Your task to perform on an android device: open sync settings in chrome Image 0: 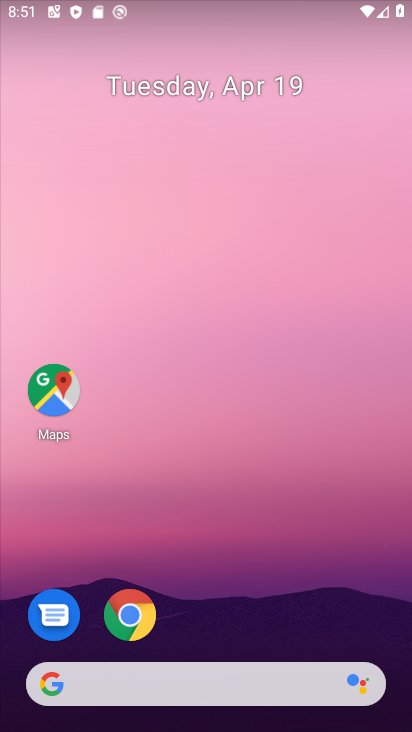
Step 0: drag from (229, 614) to (258, 70)
Your task to perform on an android device: open sync settings in chrome Image 1: 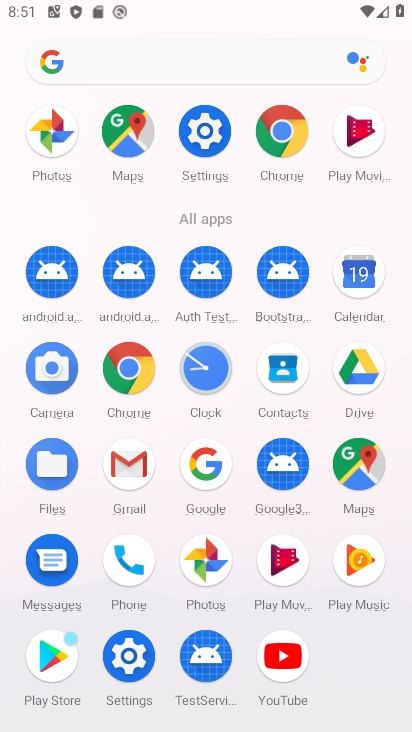
Step 1: click (205, 360)
Your task to perform on an android device: open sync settings in chrome Image 2: 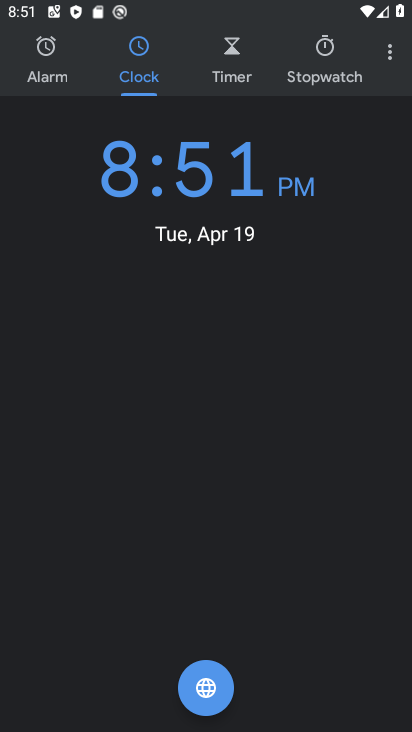
Step 2: click (393, 42)
Your task to perform on an android device: open sync settings in chrome Image 3: 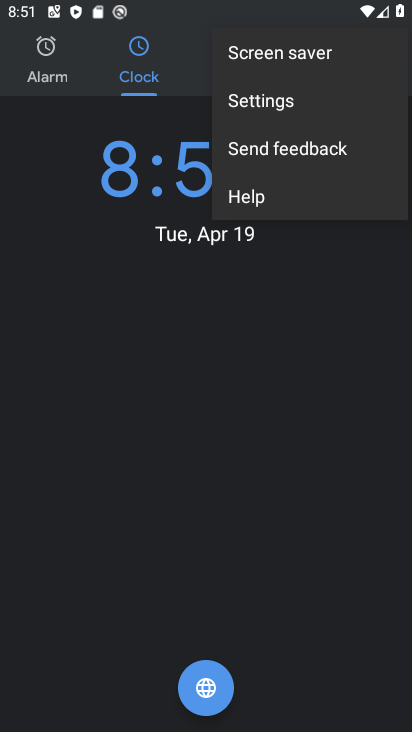
Step 3: press home button
Your task to perform on an android device: open sync settings in chrome Image 4: 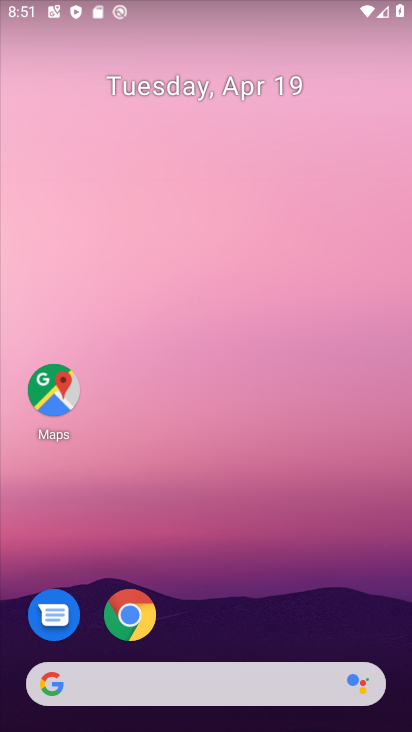
Step 4: click (137, 609)
Your task to perform on an android device: open sync settings in chrome Image 5: 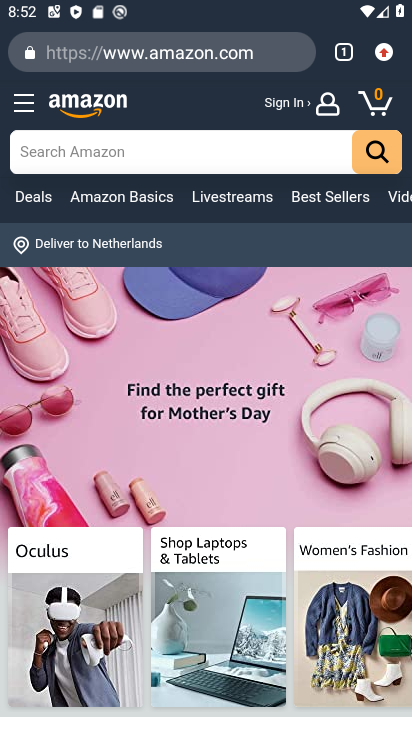
Step 5: click (388, 51)
Your task to perform on an android device: open sync settings in chrome Image 6: 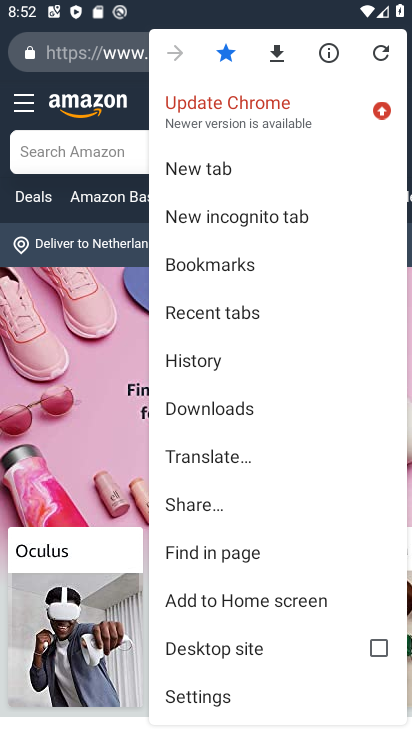
Step 6: click (195, 691)
Your task to perform on an android device: open sync settings in chrome Image 7: 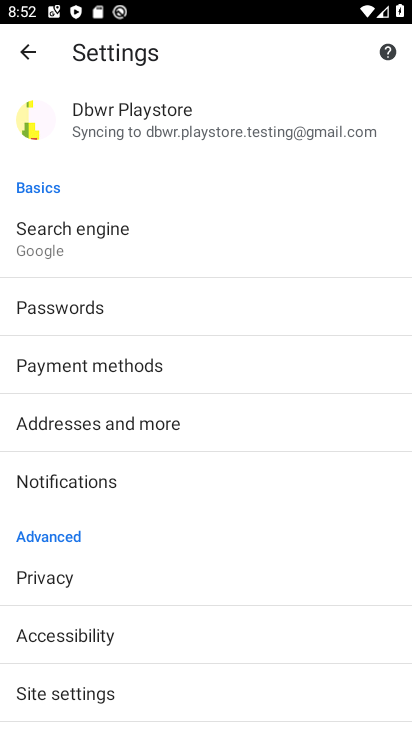
Step 7: click (152, 120)
Your task to perform on an android device: open sync settings in chrome Image 8: 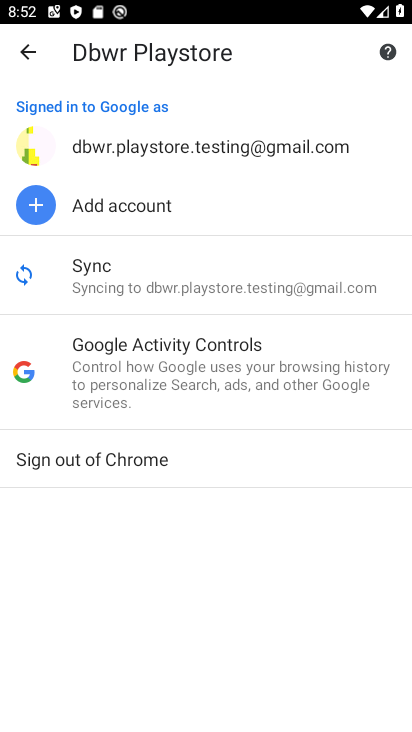
Step 8: click (113, 287)
Your task to perform on an android device: open sync settings in chrome Image 9: 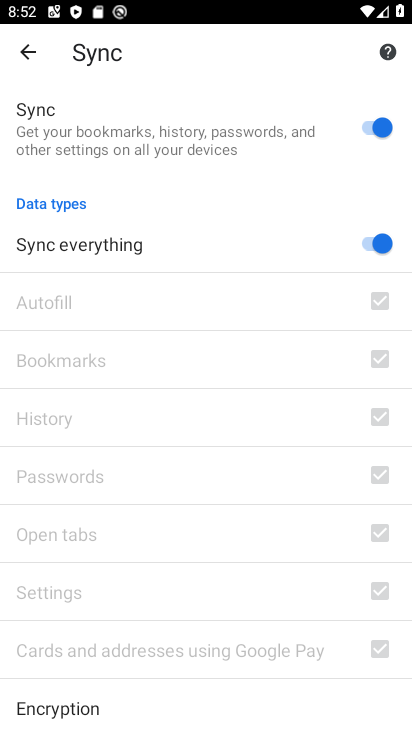
Step 9: task complete